Your task to perform on an android device: turn on data saver in the chrome app Image 0: 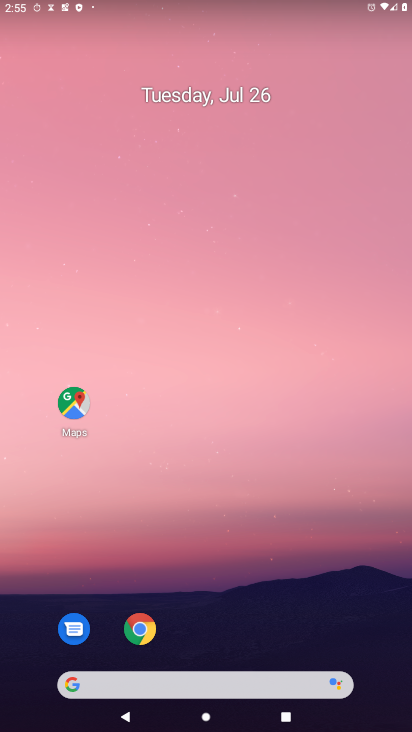
Step 0: drag from (249, 684) to (336, 33)
Your task to perform on an android device: turn on data saver in the chrome app Image 1: 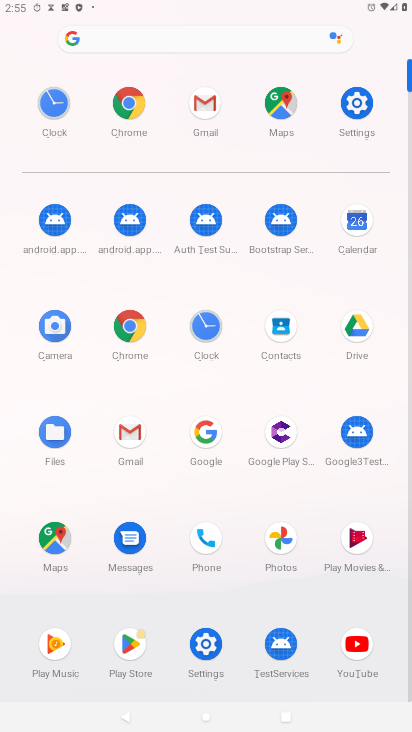
Step 1: click (119, 321)
Your task to perform on an android device: turn on data saver in the chrome app Image 2: 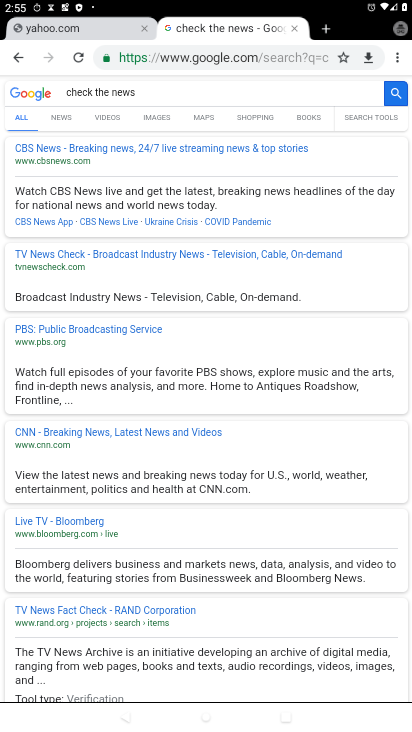
Step 2: drag from (397, 57) to (288, 358)
Your task to perform on an android device: turn on data saver in the chrome app Image 3: 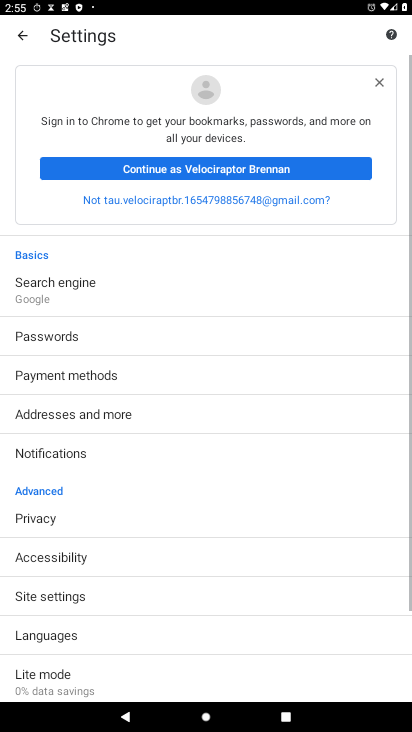
Step 3: drag from (117, 652) to (192, 287)
Your task to perform on an android device: turn on data saver in the chrome app Image 4: 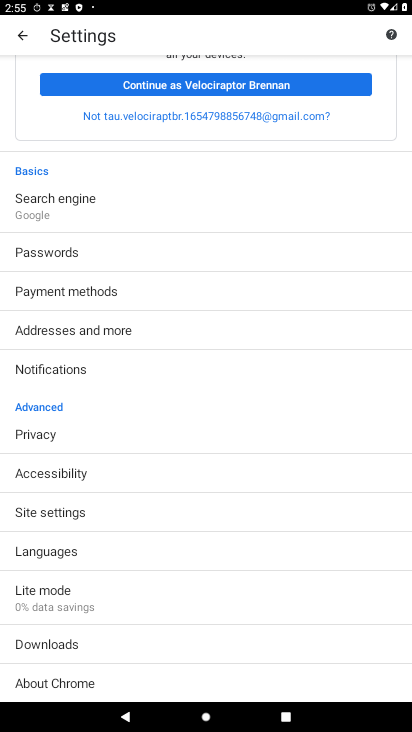
Step 4: click (68, 606)
Your task to perform on an android device: turn on data saver in the chrome app Image 5: 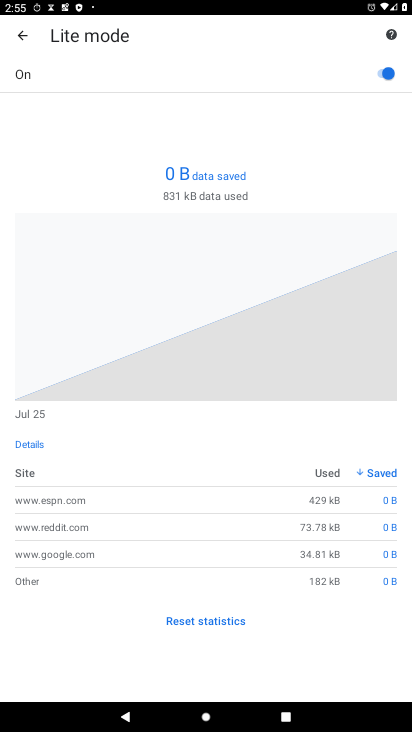
Step 5: task complete